Your task to perform on an android device: open chrome privacy settings Image 0: 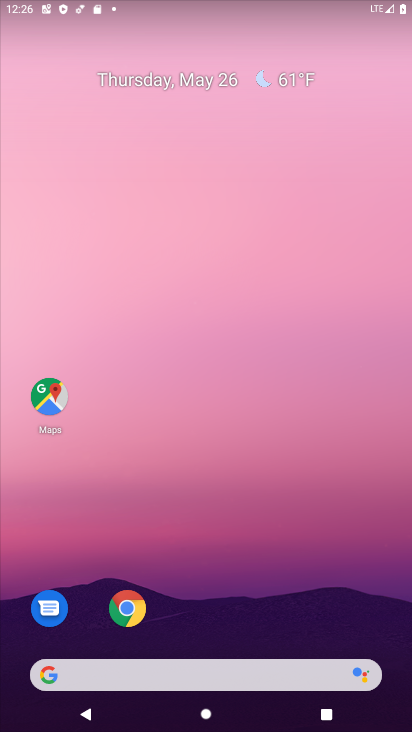
Step 0: click (128, 610)
Your task to perform on an android device: open chrome privacy settings Image 1: 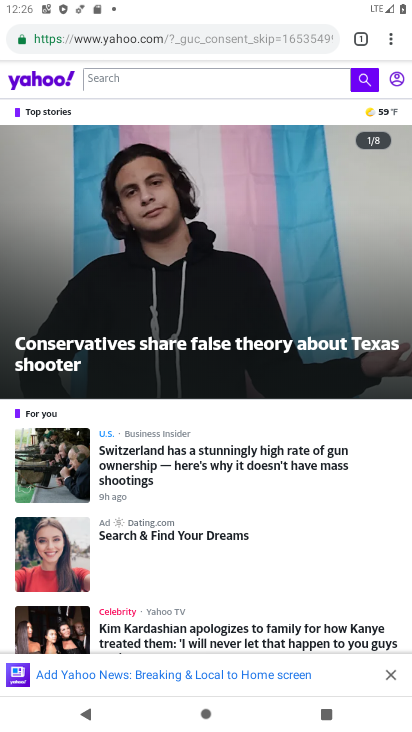
Step 1: click (386, 41)
Your task to perform on an android device: open chrome privacy settings Image 2: 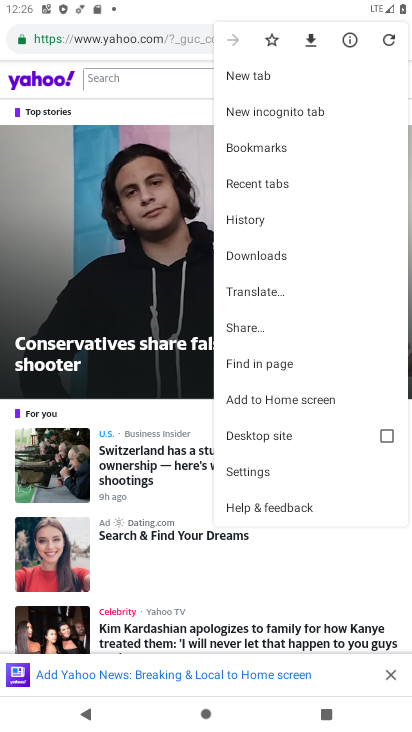
Step 2: click (254, 473)
Your task to perform on an android device: open chrome privacy settings Image 3: 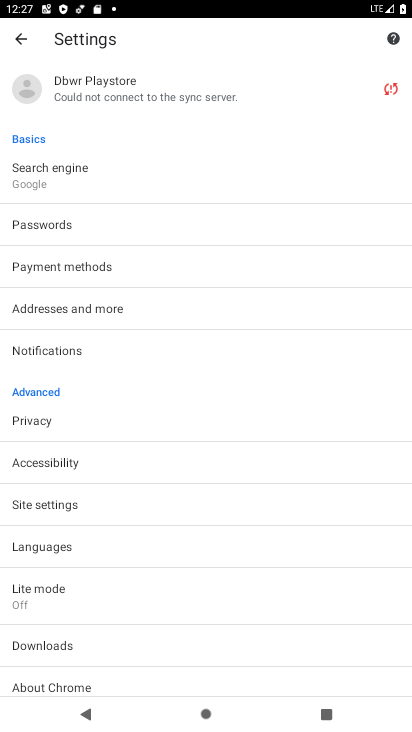
Step 3: click (34, 420)
Your task to perform on an android device: open chrome privacy settings Image 4: 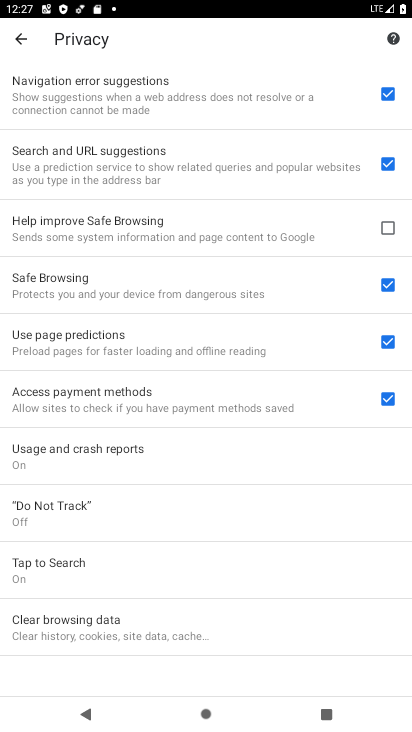
Step 4: task complete